Your task to perform on an android device: Go to Amazon Image 0: 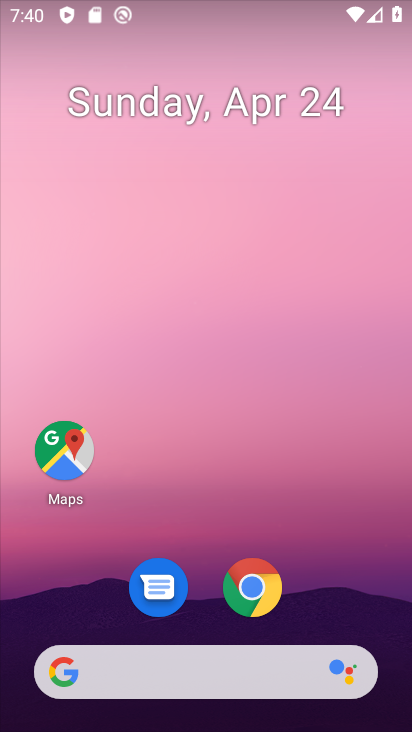
Step 0: drag from (336, 508) to (338, 37)
Your task to perform on an android device: Go to Amazon Image 1: 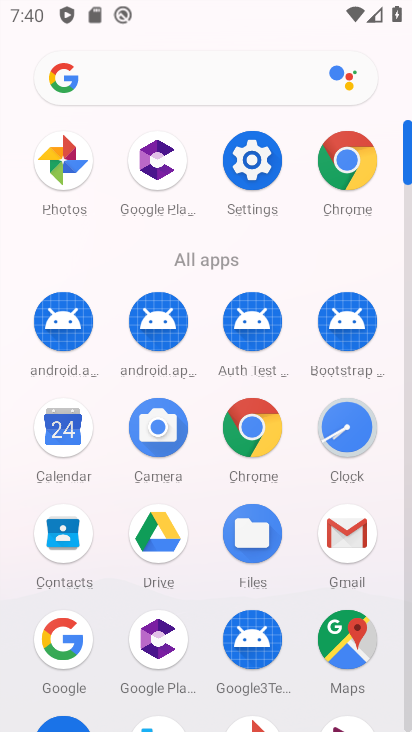
Step 1: click (344, 156)
Your task to perform on an android device: Go to Amazon Image 2: 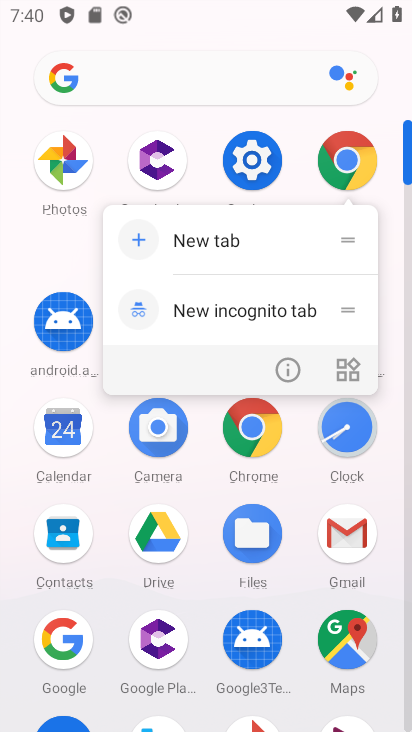
Step 2: click (248, 447)
Your task to perform on an android device: Go to Amazon Image 3: 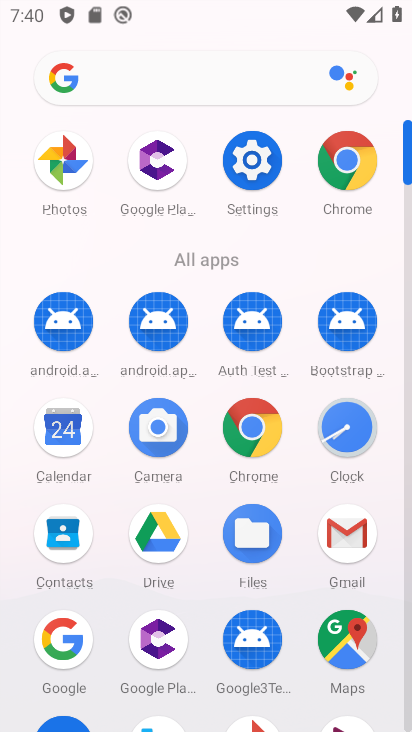
Step 3: click (252, 443)
Your task to perform on an android device: Go to Amazon Image 4: 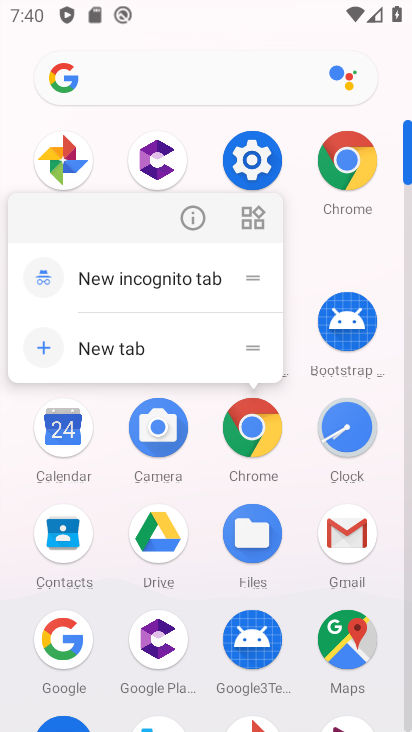
Step 4: click (259, 449)
Your task to perform on an android device: Go to Amazon Image 5: 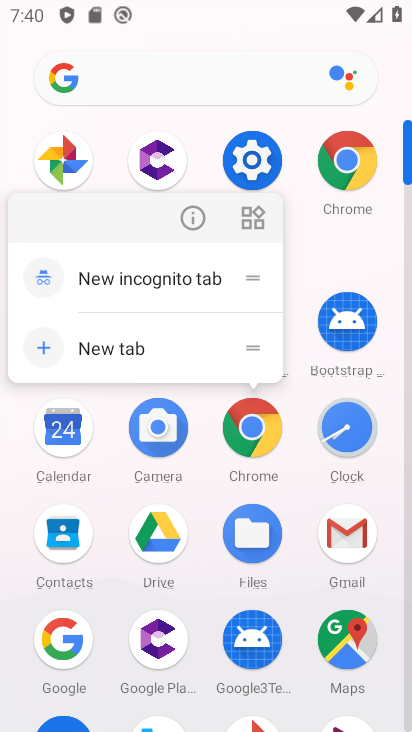
Step 5: click (265, 458)
Your task to perform on an android device: Go to Amazon Image 6: 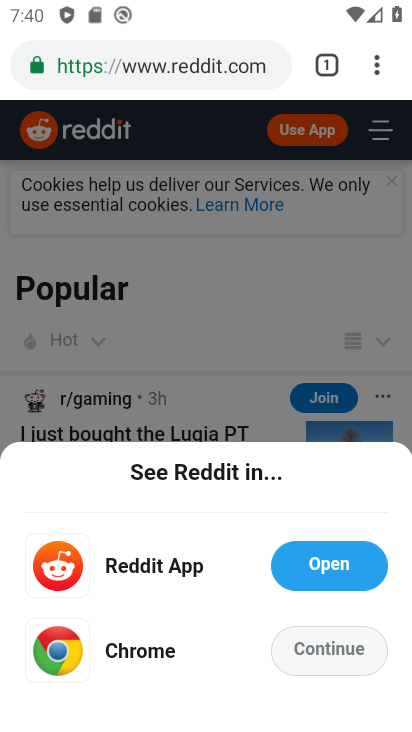
Step 6: click (329, 63)
Your task to perform on an android device: Go to Amazon Image 7: 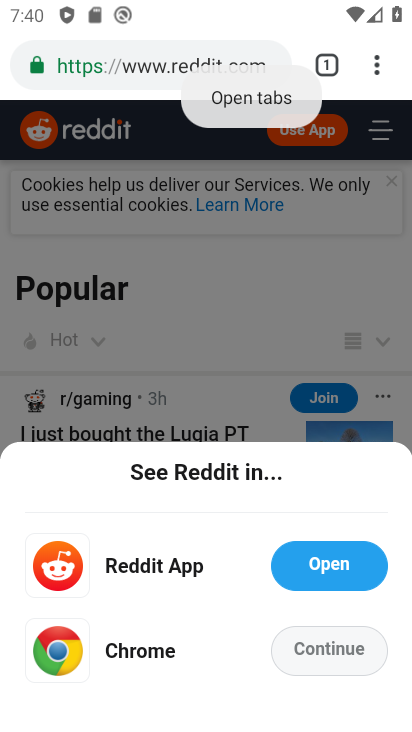
Step 7: click (329, 65)
Your task to perform on an android device: Go to Amazon Image 8: 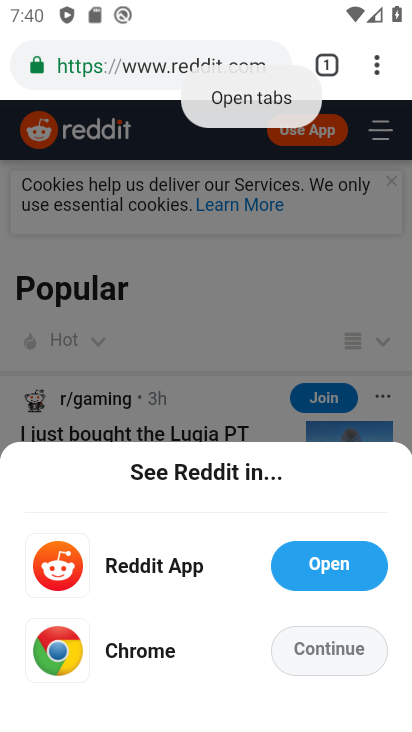
Step 8: click (329, 65)
Your task to perform on an android device: Go to Amazon Image 9: 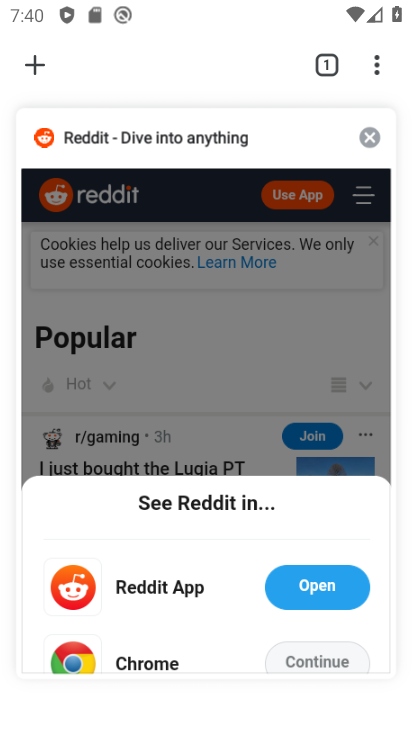
Step 9: click (17, 52)
Your task to perform on an android device: Go to Amazon Image 10: 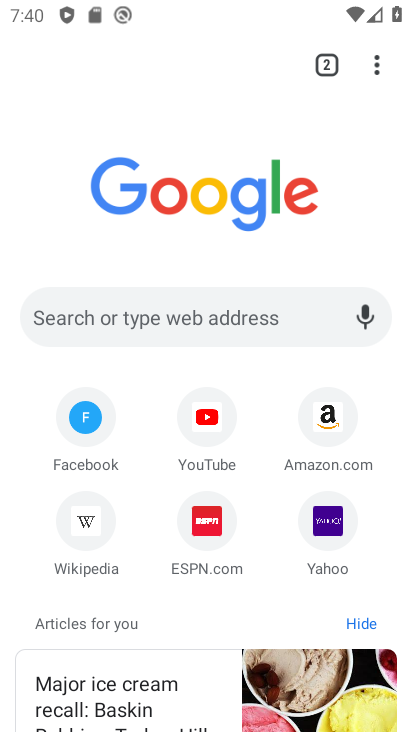
Step 10: click (168, 326)
Your task to perform on an android device: Go to Amazon Image 11: 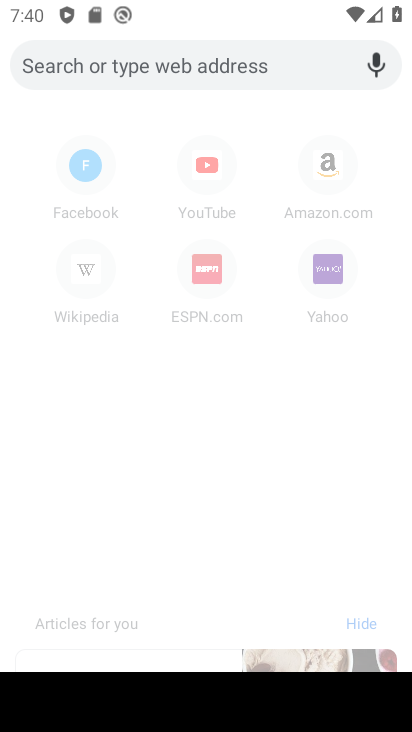
Step 11: type "amazon"
Your task to perform on an android device: Go to Amazon Image 12: 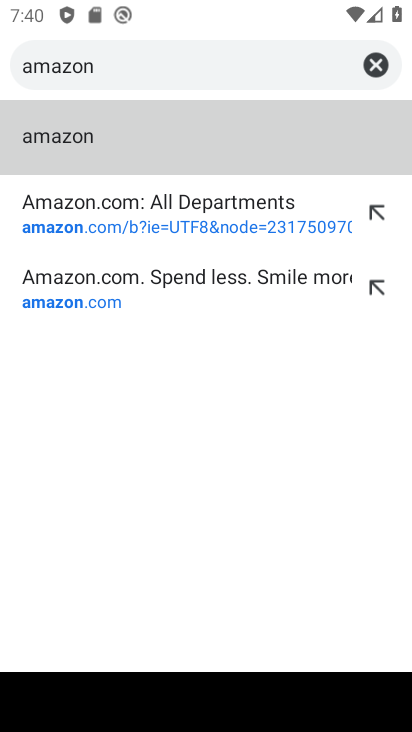
Step 12: click (65, 134)
Your task to perform on an android device: Go to Amazon Image 13: 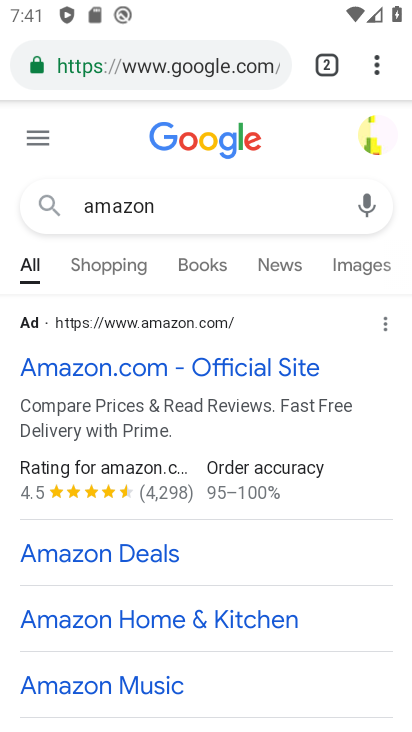
Step 13: click (90, 360)
Your task to perform on an android device: Go to Amazon Image 14: 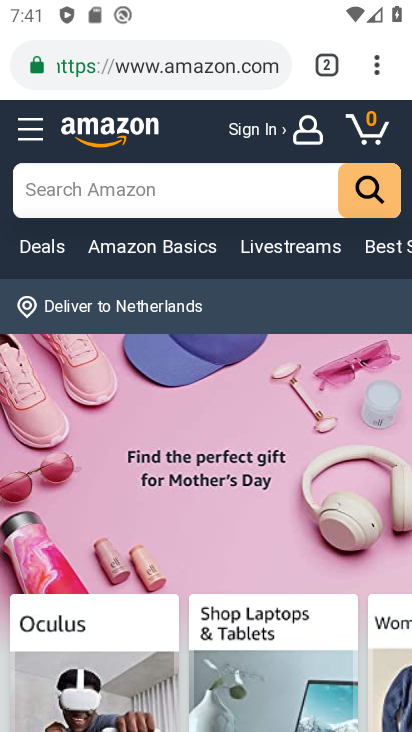
Step 14: task complete